Your task to perform on an android device: clear all cookies in the chrome app Image 0: 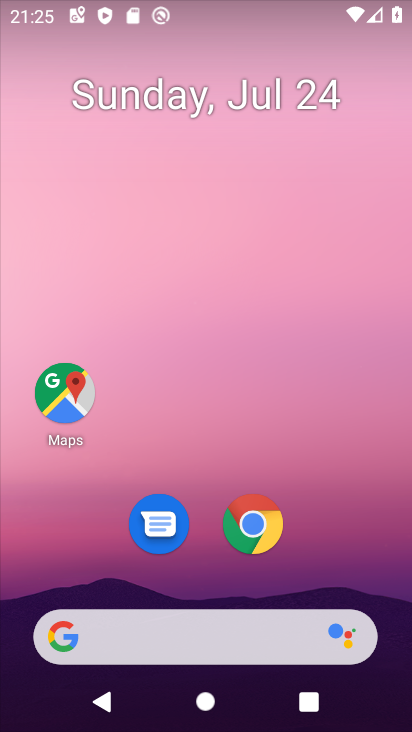
Step 0: click (249, 533)
Your task to perform on an android device: clear all cookies in the chrome app Image 1: 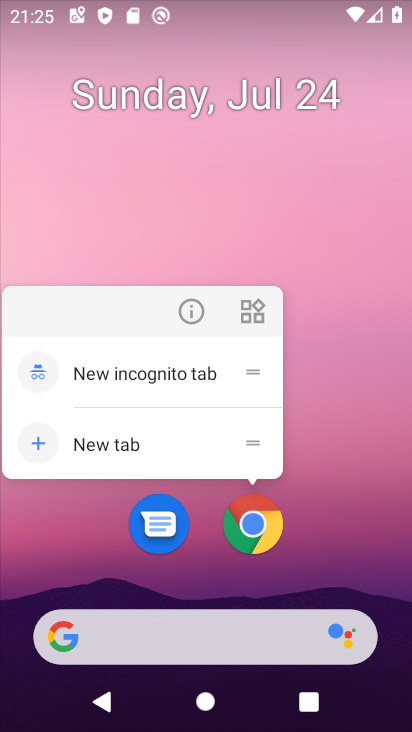
Step 1: click (249, 533)
Your task to perform on an android device: clear all cookies in the chrome app Image 2: 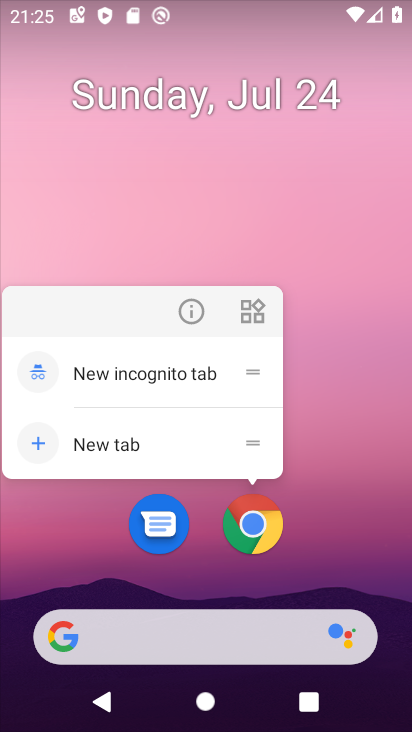
Step 2: click (254, 527)
Your task to perform on an android device: clear all cookies in the chrome app Image 3: 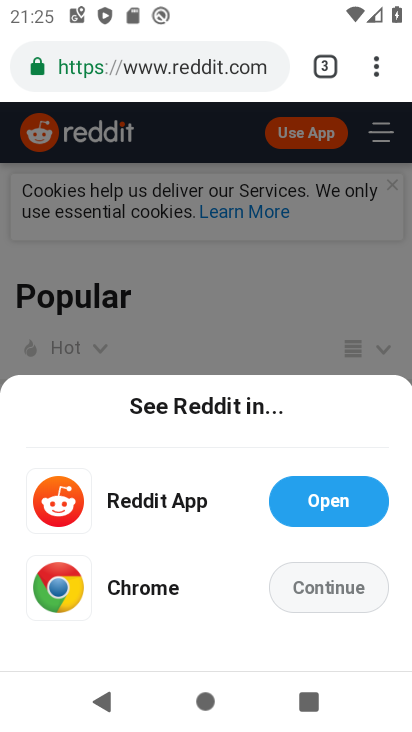
Step 3: drag from (376, 62) to (193, 537)
Your task to perform on an android device: clear all cookies in the chrome app Image 4: 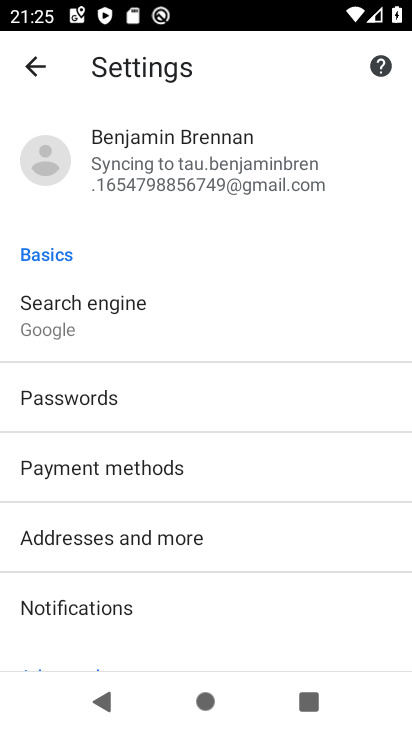
Step 4: drag from (176, 578) to (254, 174)
Your task to perform on an android device: clear all cookies in the chrome app Image 5: 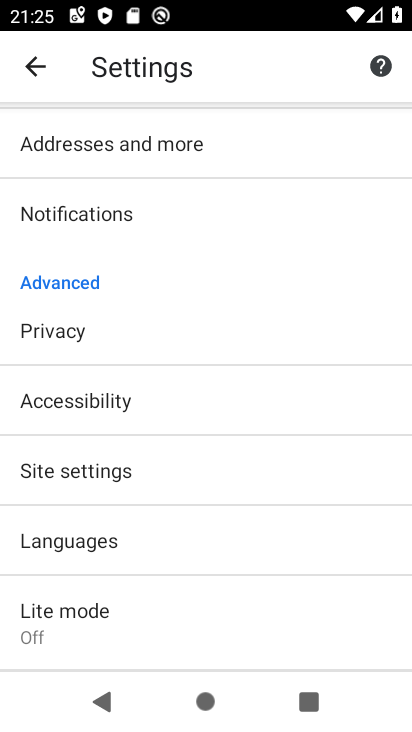
Step 5: click (63, 339)
Your task to perform on an android device: clear all cookies in the chrome app Image 6: 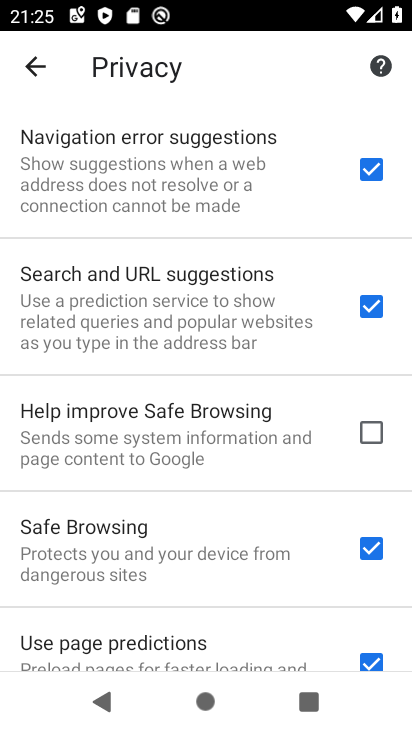
Step 6: drag from (201, 620) to (286, 206)
Your task to perform on an android device: clear all cookies in the chrome app Image 7: 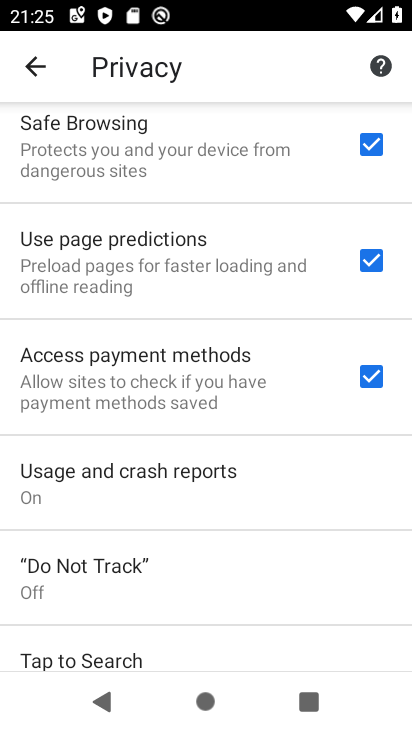
Step 7: drag from (225, 596) to (303, 107)
Your task to perform on an android device: clear all cookies in the chrome app Image 8: 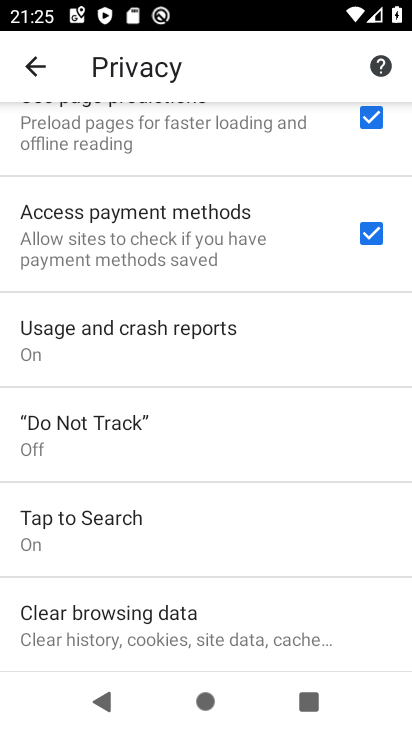
Step 8: click (185, 620)
Your task to perform on an android device: clear all cookies in the chrome app Image 9: 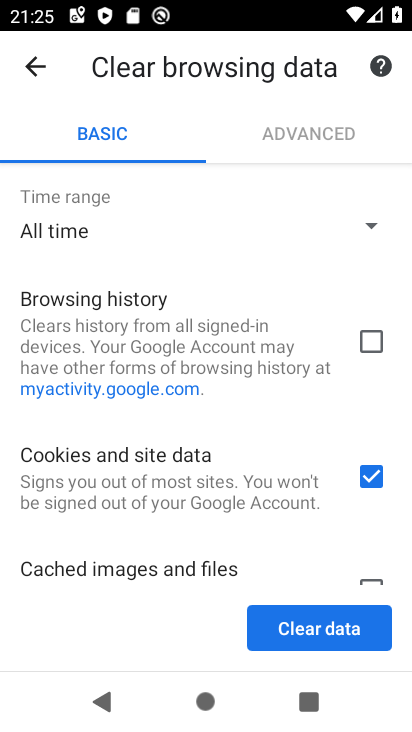
Step 9: click (310, 624)
Your task to perform on an android device: clear all cookies in the chrome app Image 10: 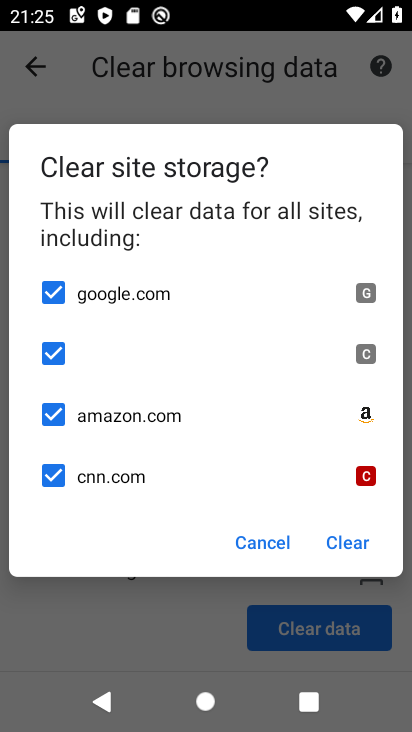
Step 10: click (342, 536)
Your task to perform on an android device: clear all cookies in the chrome app Image 11: 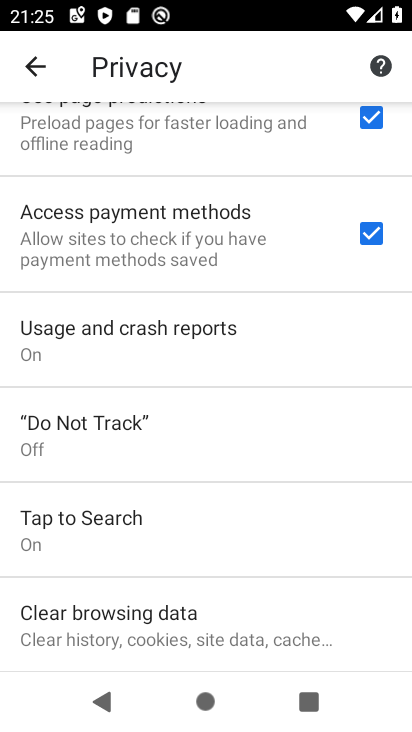
Step 11: task complete